Your task to perform on an android device: What's on my calendar today? Image 0: 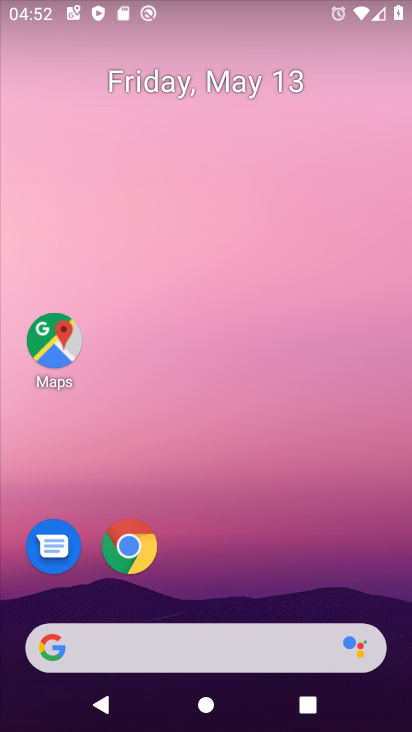
Step 0: drag from (201, 546) to (178, 5)
Your task to perform on an android device: What's on my calendar today? Image 1: 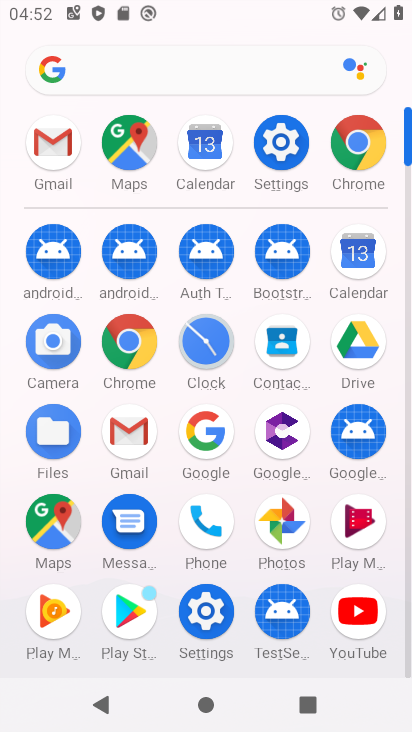
Step 1: click (356, 275)
Your task to perform on an android device: What's on my calendar today? Image 2: 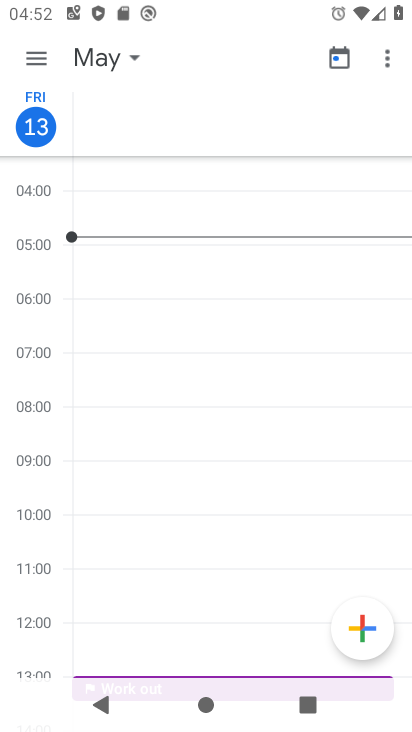
Step 2: click (46, 52)
Your task to perform on an android device: What's on my calendar today? Image 3: 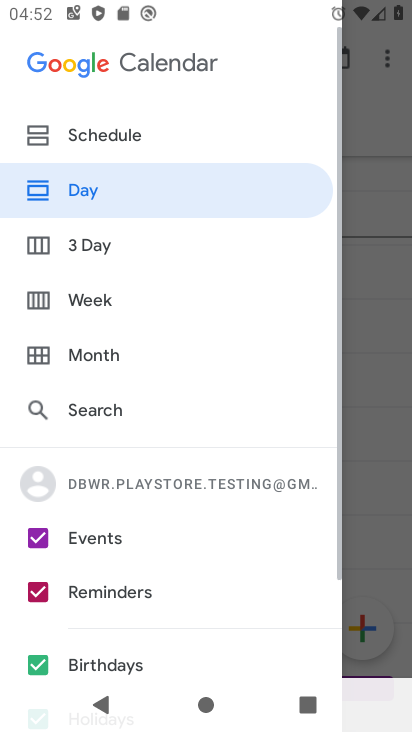
Step 3: click (161, 202)
Your task to perform on an android device: What's on my calendar today? Image 4: 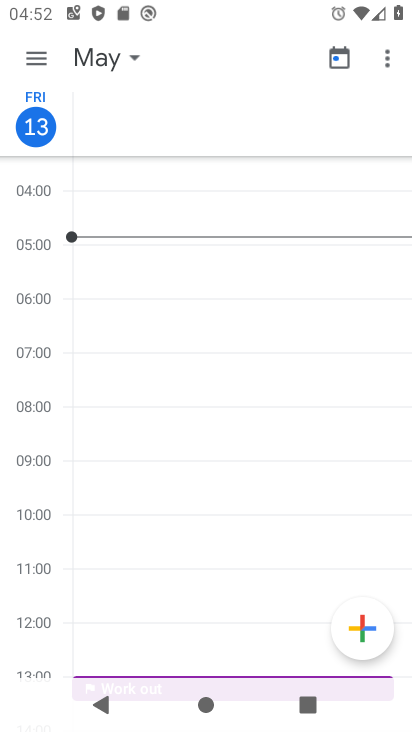
Step 4: task complete